Your task to perform on an android device: turn on javascript in the chrome app Image 0: 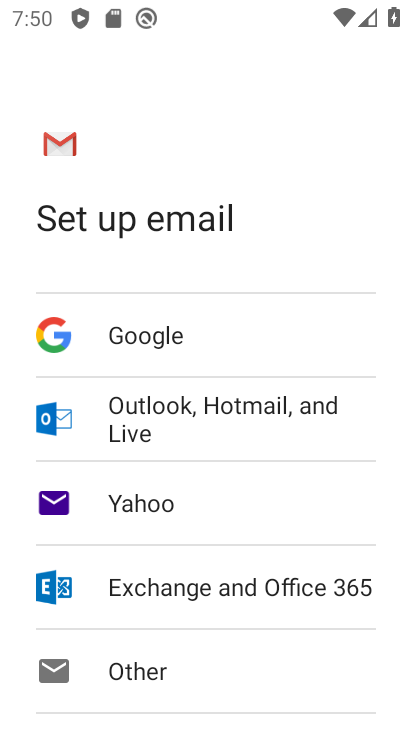
Step 0: press home button
Your task to perform on an android device: turn on javascript in the chrome app Image 1: 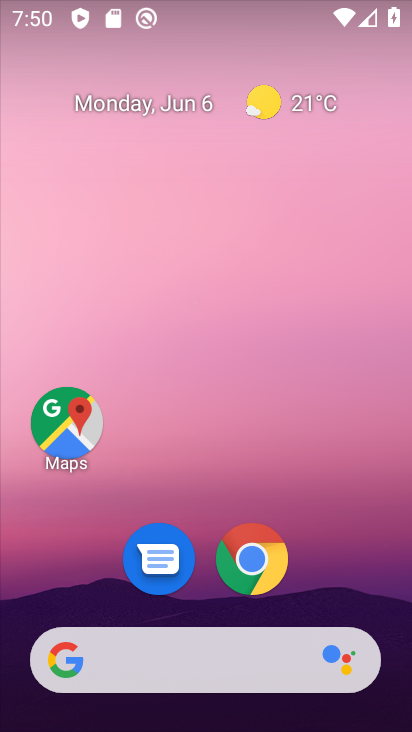
Step 1: click (243, 567)
Your task to perform on an android device: turn on javascript in the chrome app Image 2: 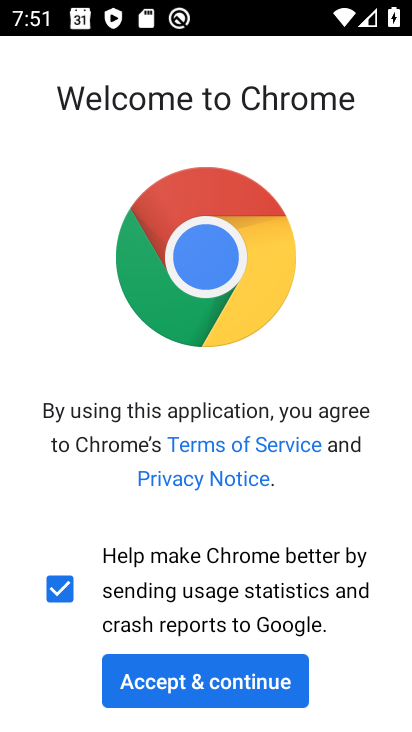
Step 2: click (242, 685)
Your task to perform on an android device: turn on javascript in the chrome app Image 3: 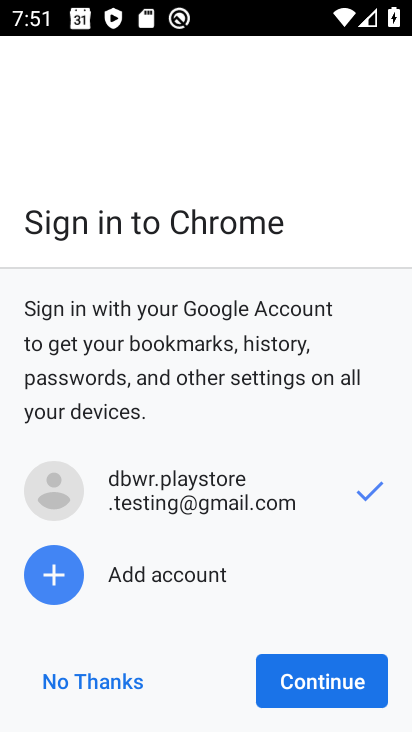
Step 3: click (318, 675)
Your task to perform on an android device: turn on javascript in the chrome app Image 4: 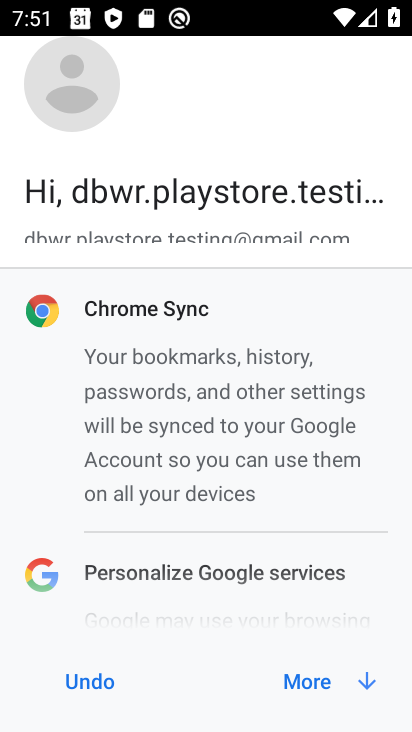
Step 4: click (318, 675)
Your task to perform on an android device: turn on javascript in the chrome app Image 5: 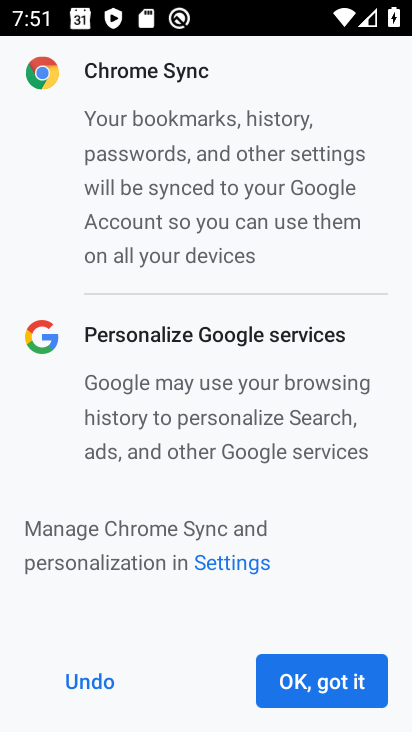
Step 5: click (318, 675)
Your task to perform on an android device: turn on javascript in the chrome app Image 6: 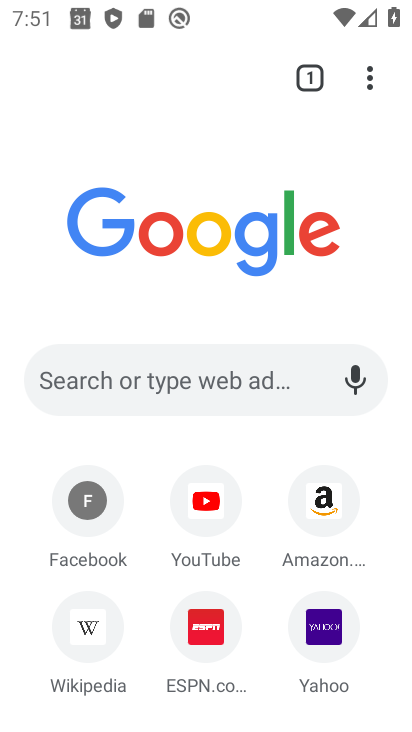
Step 6: click (371, 84)
Your task to perform on an android device: turn on javascript in the chrome app Image 7: 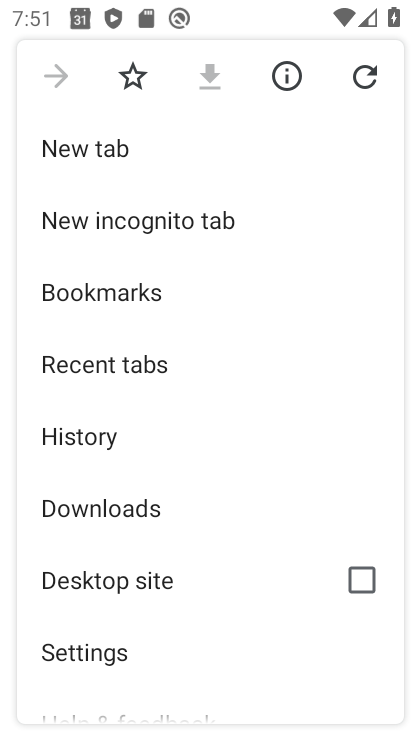
Step 7: click (98, 651)
Your task to perform on an android device: turn on javascript in the chrome app Image 8: 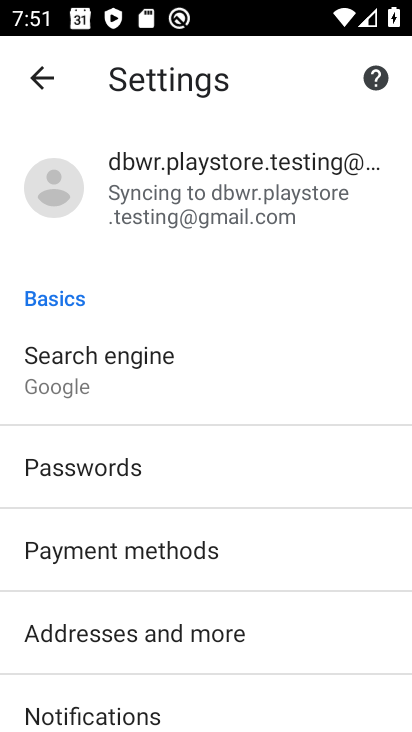
Step 8: drag from (99, 668) to (101, 278)
Your task to perform on an android device: turn on javascript in the chrome app Image 9: 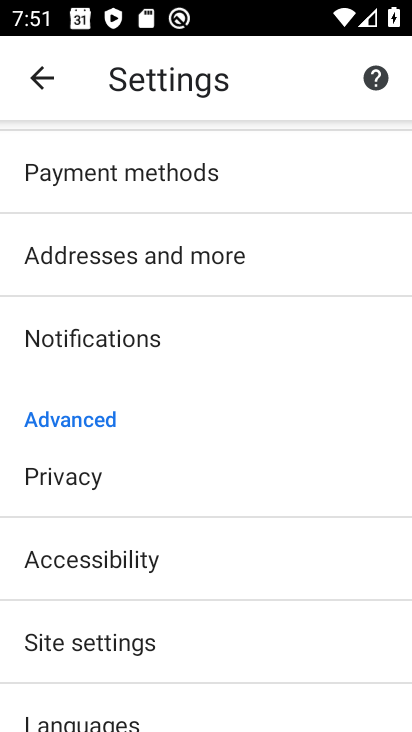
Step 9: click (89, 642)
Your task to perform on an android device: turn on javascript in the chrome app Image 10: 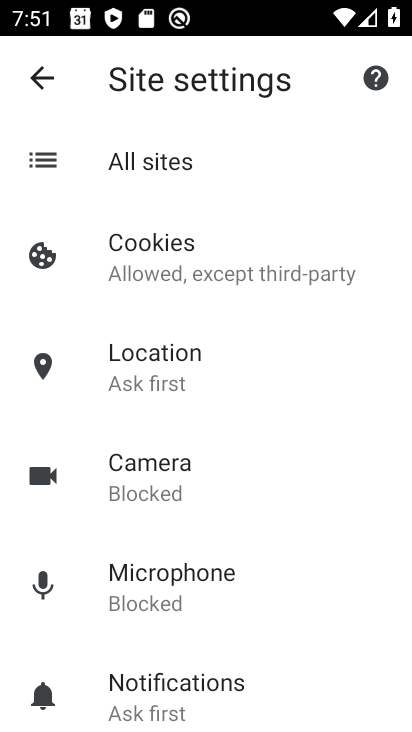
Step 10: drag from (166, 656) to (178, 326)
Your task to perform on an android device: turn on javascript in the chrome app Image 11: 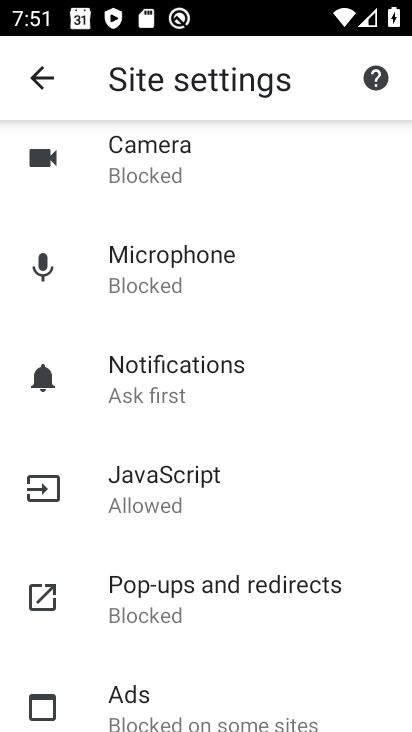
Step 11: click (153, 510)
Your task to perform on an android device: turn on javascript in the chrome app Image 12: 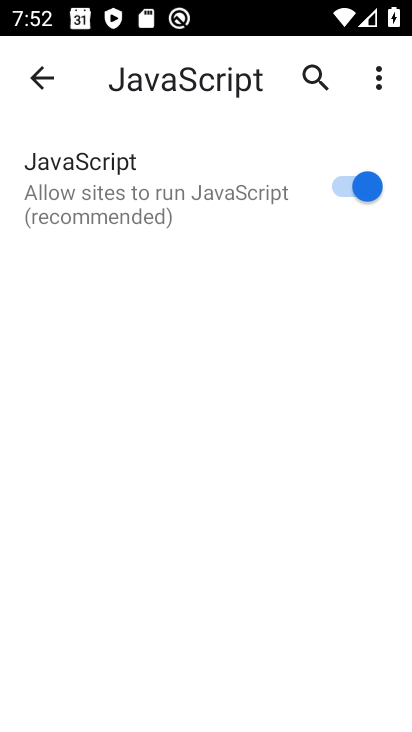
Step 12: task complete